Your task to perform on an android device: Open Chrome and go to the settings page Image 0: 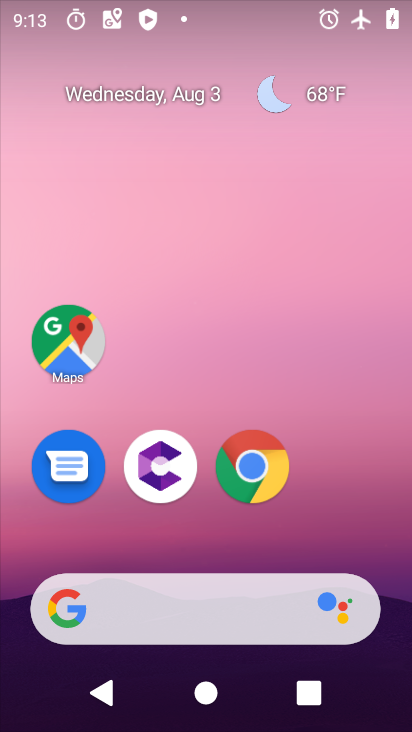
Step 0: drag from (333, 384) to (259, 5)
Your task to perform on an android device: Open Chrome and go to the settings page Image 1: 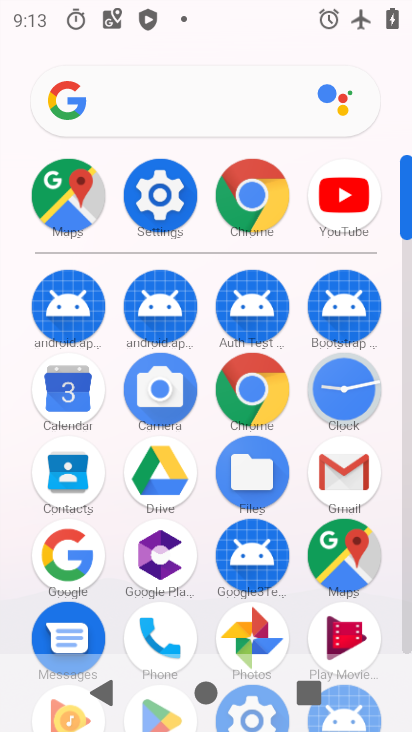
Step 1: click (257, 388)
Your task to perform on an android device: Open Chrome and go to the settings page Image 2: 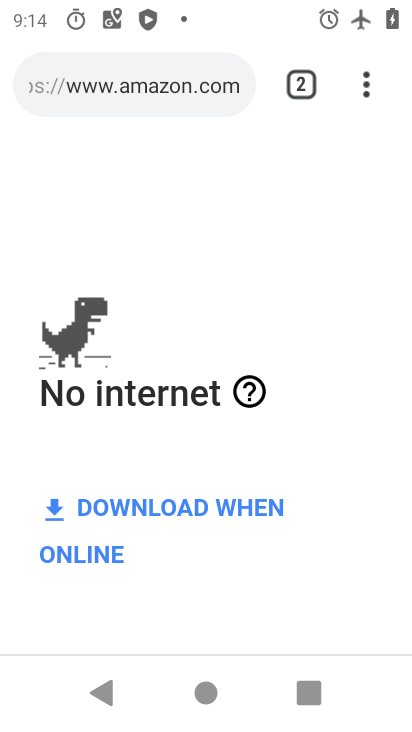
Step 2: click (367, 89)
Your task to perform on an android device: Open Chrome and go to the settings page Image 3: 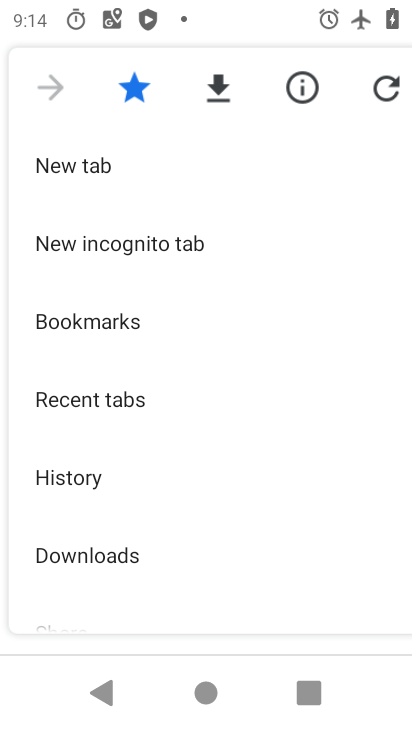
Step 3: drag from (158, 501) to (277, 151)
Your task to perform on an android device: Open Chrome and go to the settings page Image 4: 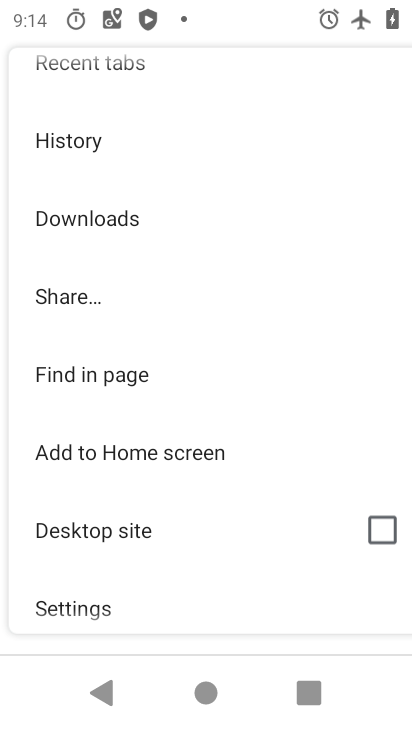
Step 4: click (90, 614)
Your task to perform on an android device: Open Chrome and go to the settings page Image 5: 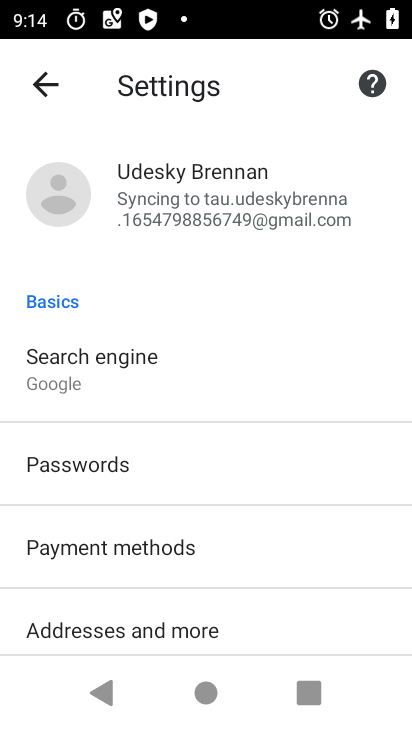
Step 5: task complete